Your task to perform on an android device: set the timer Image 0: 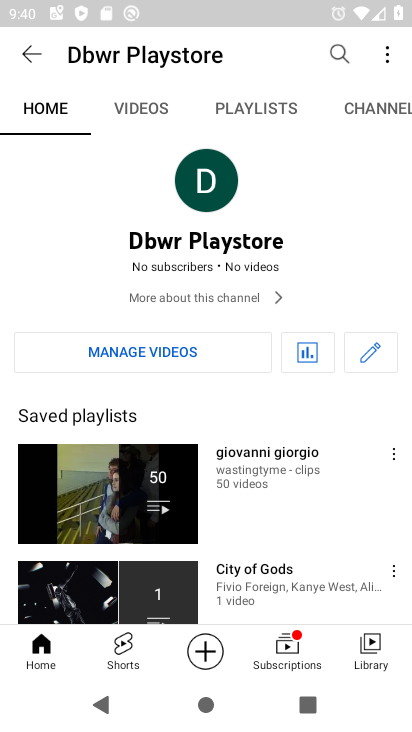
Step 0: press home button
Your task to perform on an android device: set the timer Image 1: 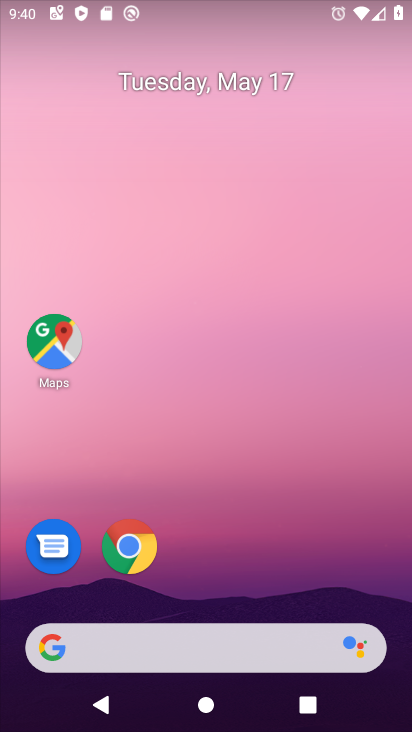
Step 1: drag from (269, 607) to (261, 51)
Your task to perform on an android device: set the timer Image 2: 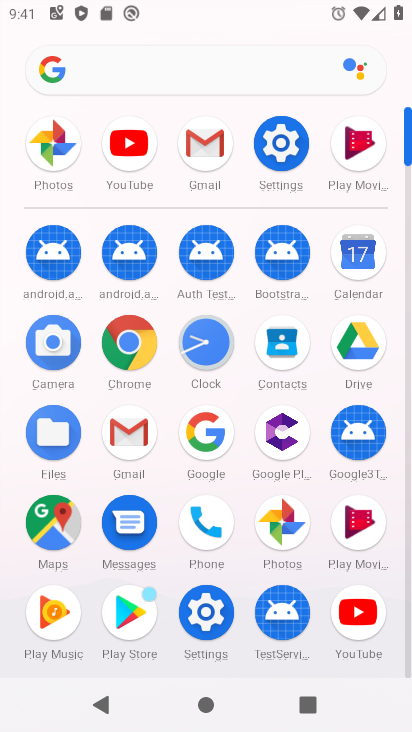
Step 2: click (198, 342)
Your task to perform on an android device: set the timer Image 3: 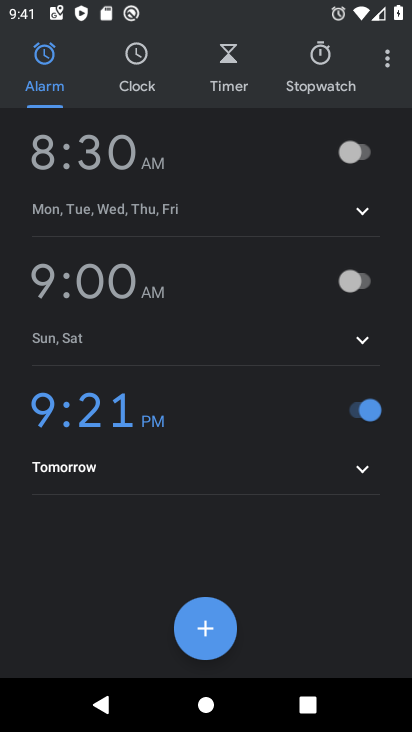
Step 3: click (223, 75)
Your task to perform on an android device: set the timer Image 4: 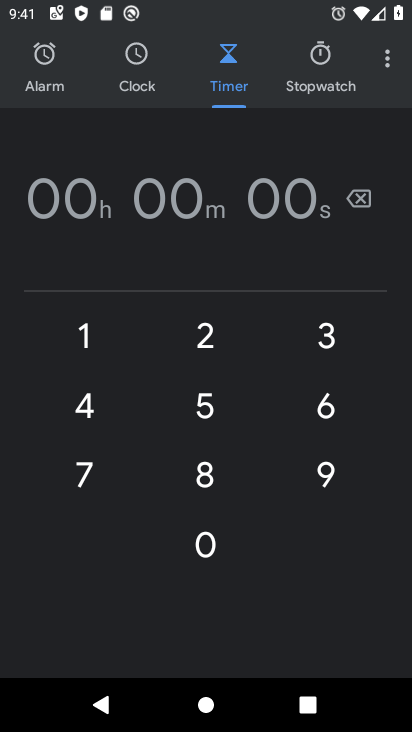
Step 4: click (211, 469)
Your task to perform on an android device: set the timer Image 5: 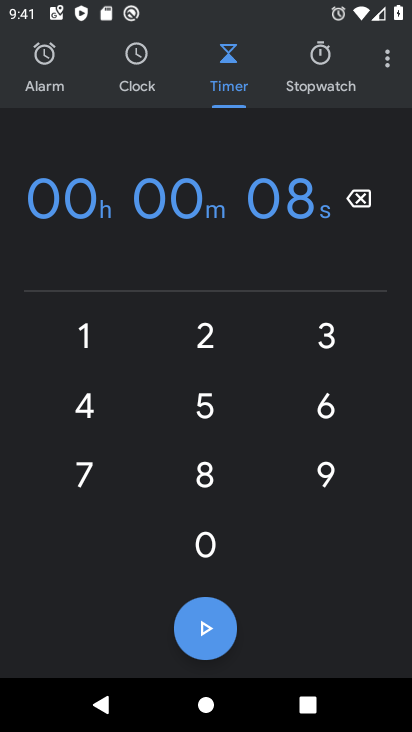
Step 5: click (211, 462)
Your task to perform on an android device: set the timer Image 6: 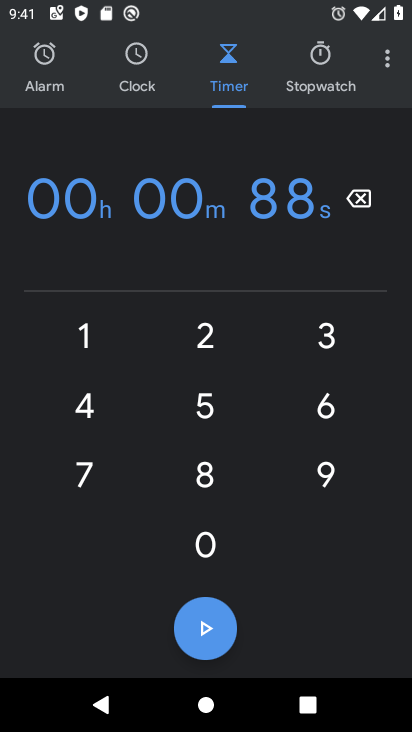
Step 6: click (211, 462)
Your task to perform on an android device: set the timer Image 7: 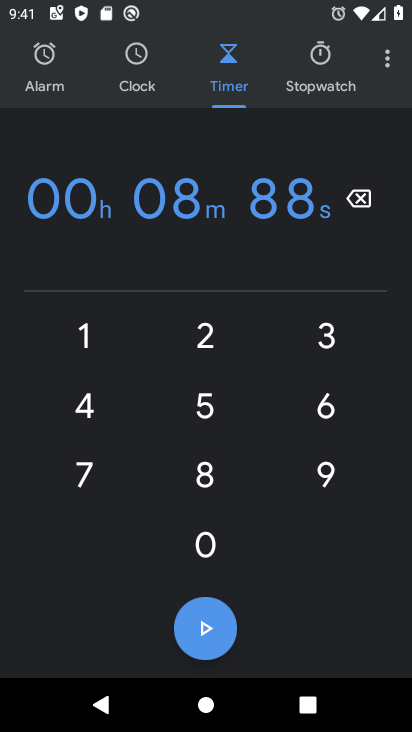
Step 7: click (213, 461)
Your task to perform on an android device: set the timer Image 8: 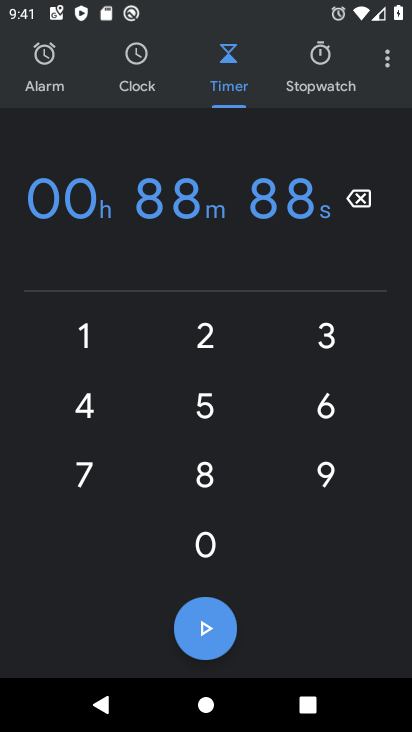
Step 8: click (213, 461)
Your task to perform on an android device: set the timer Image 9: 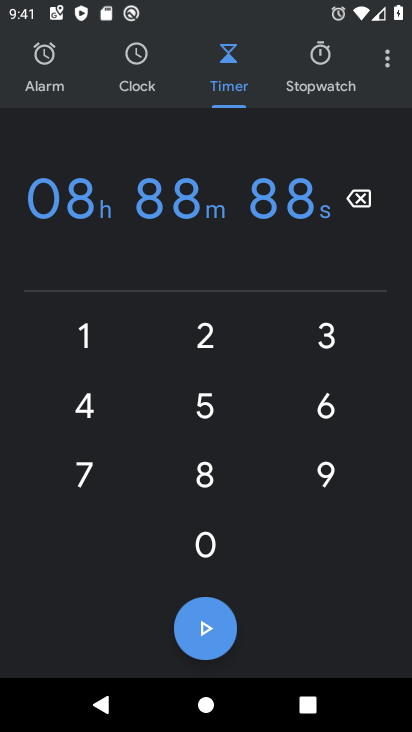
Step 9: click (213, 461)
Your task to perform on an android device: set the timer Image 10: 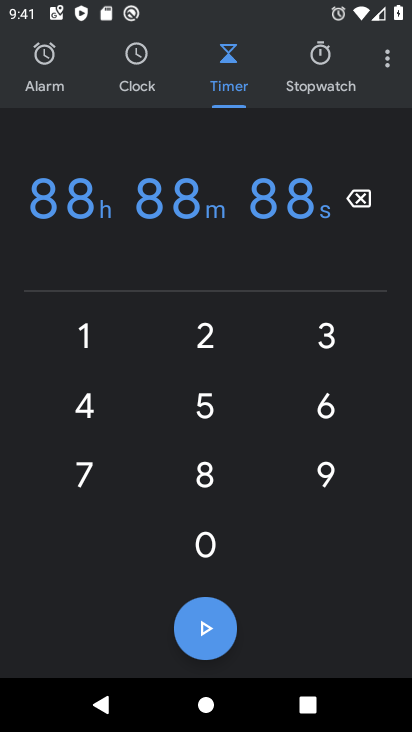
Step 10: click (213, 461)
Your task to perform on an android device: set the timer Image 11: 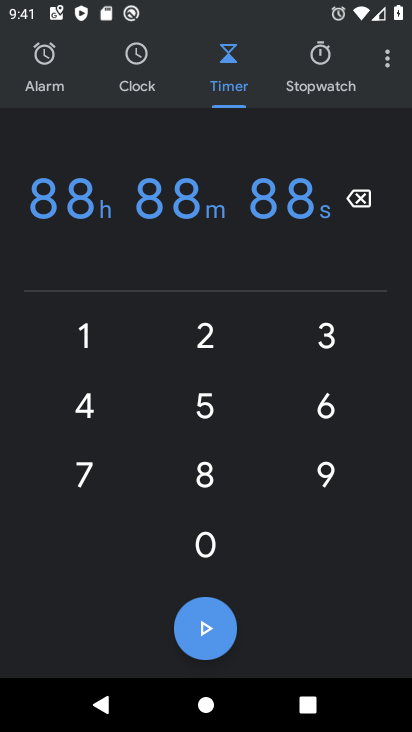
Step 11: click (216, 609)
Your task to perform on an android device: set the timer Image 12: 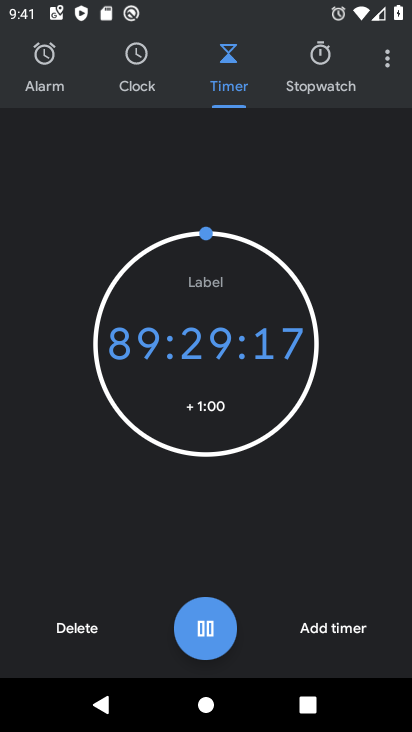
Step 12: task complete